Your task to perform on an android device: Go to Google Image 0: 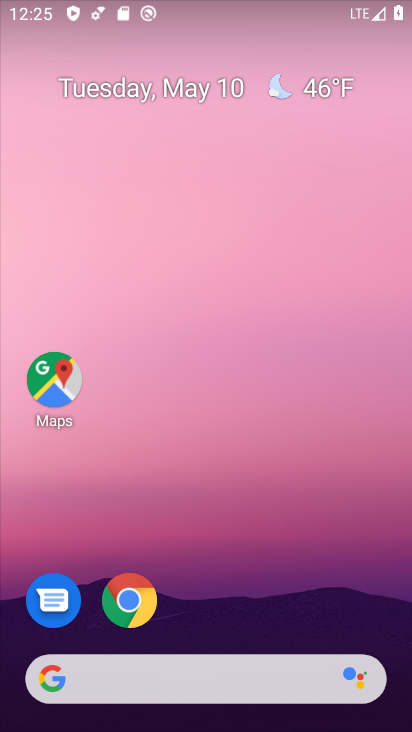
Step 0: drag from (225, 645) to (318, 195)
Your task to perform on an android device: Go to Google Image 1: 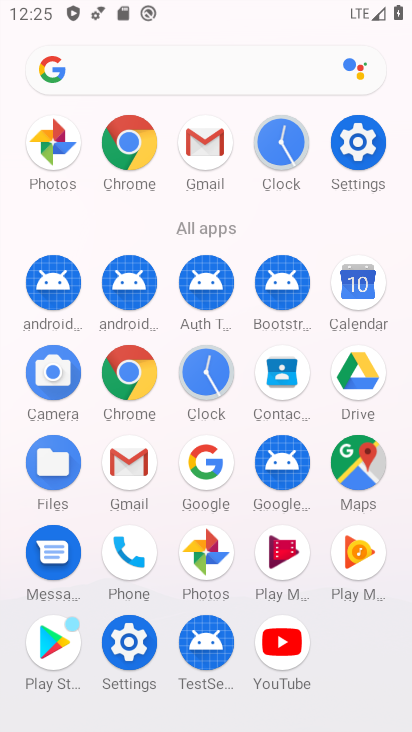
Step 1: click (215, 471)
Your task to perform on an android device: Go to Google Image 2: 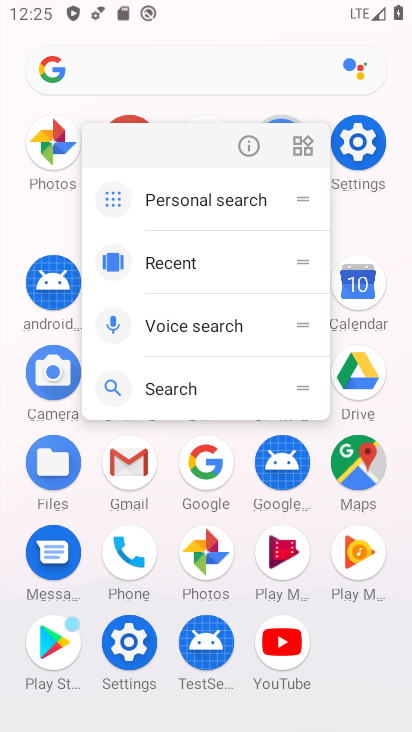
Step 2: click (191, 471)
Your task to perform on an android device: Go to Google Image 3: 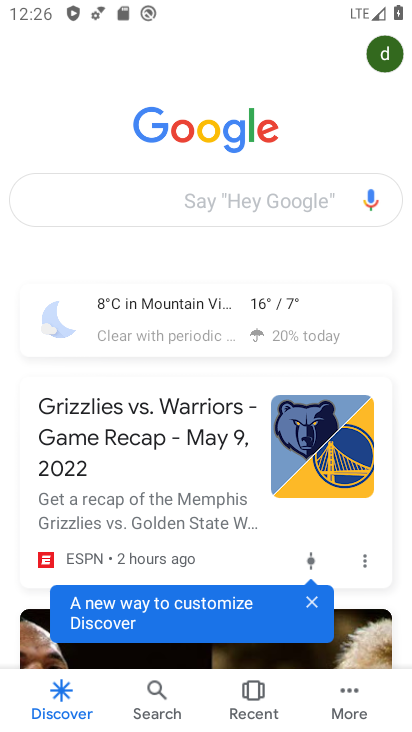
Step 3: task complete